Your task to perform on an android device: set the timer Image 0: 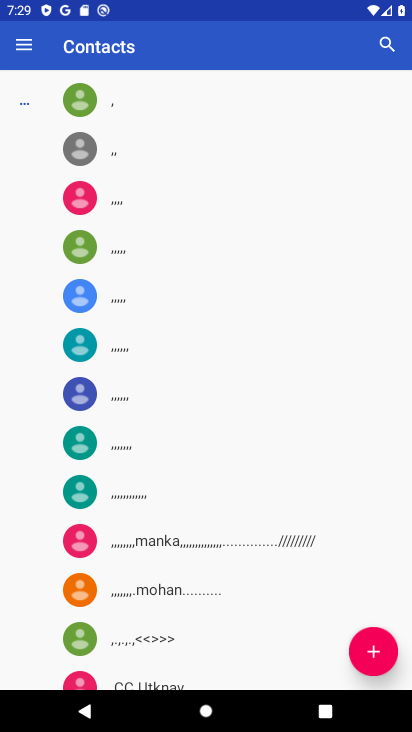
Step 0: press home button
Your task to perform on an android device: set the timer Image 1: 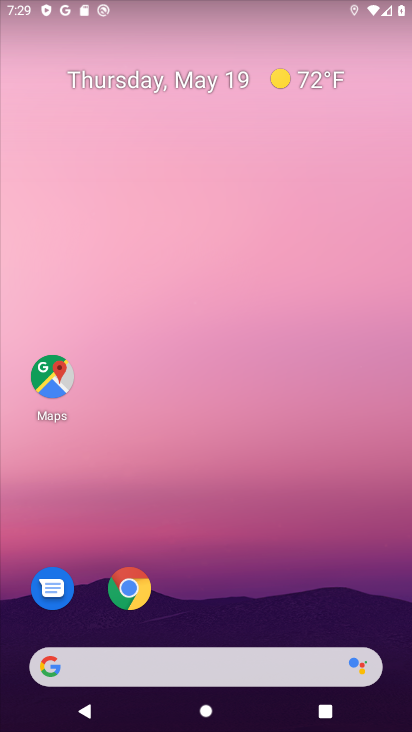
Step 1: drag from (354, 621) to (347, 32)
Your task to perform on an android device: set the timer Image 2: 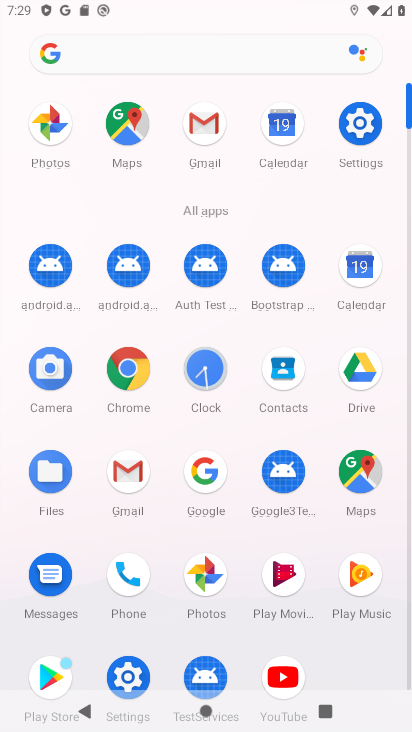
Step 2: click (188, 362)
Your task to perform on an android device: set the timer Image 3: 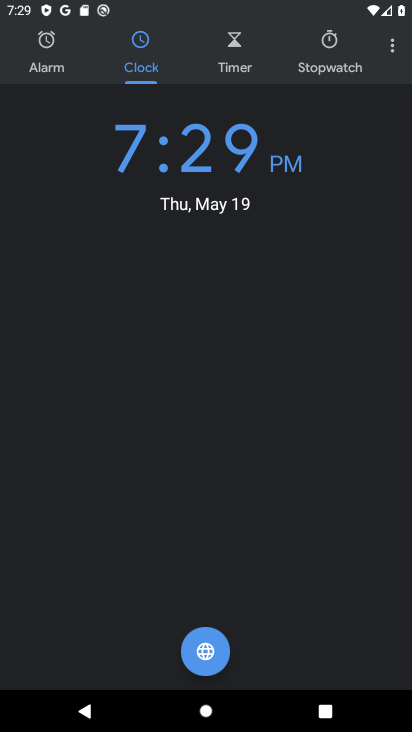
Step 3: click (229, 56)
Your task to perform on an android device: set the timer Image 4: 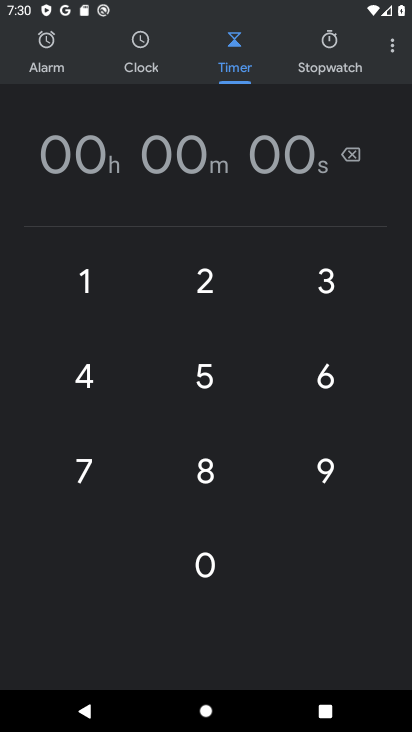
Step 4: click (309, 362)
Your task to perform on an android device: set the timer Image 5: 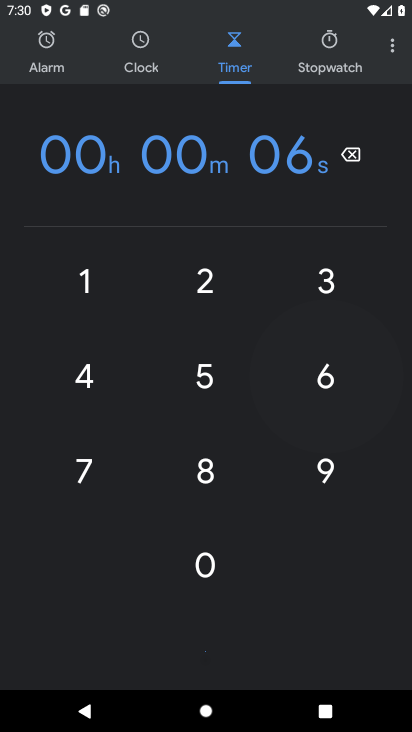
Step 5: click (164, 381)
Your task to perform on an android device: set the timer Image 6: 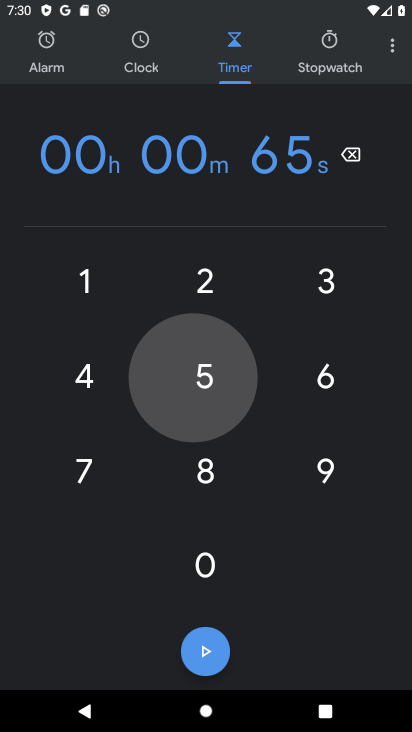
Step 6: click (178, 321)
Your task to perform on an android device: set the timer Image 7: 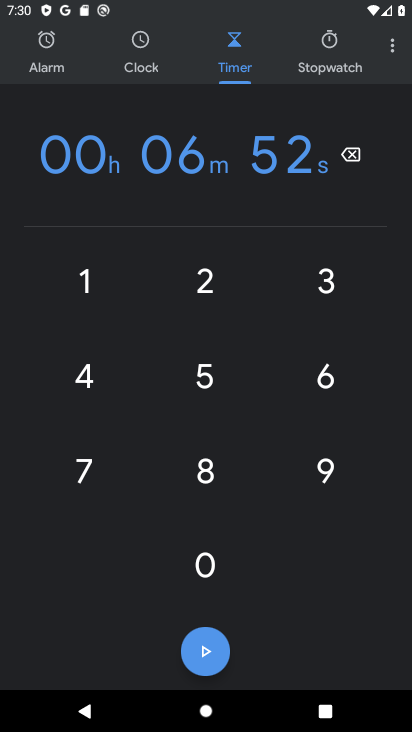
Step 7: task complete